Your task to perform on an android device: open a bookmark in the chrome app Image 0: 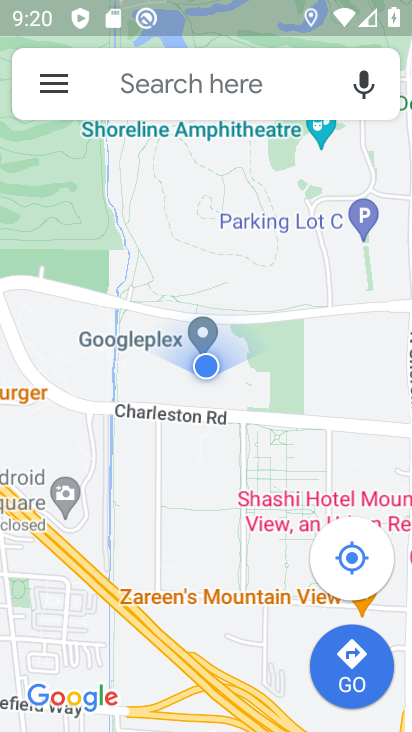
Step 0: press home button
Your task to perform on an android device: open a bookmark in the chrome app Image 1: 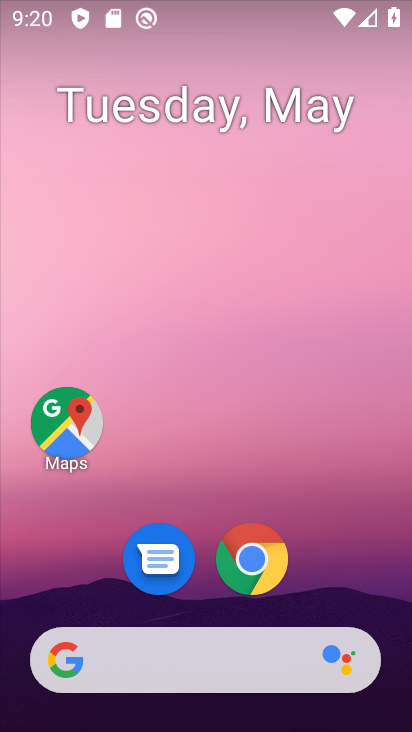
Step 1: click (258, 554)
Your task to perform on an android device: open a bookmark in the chrome app Image 2: 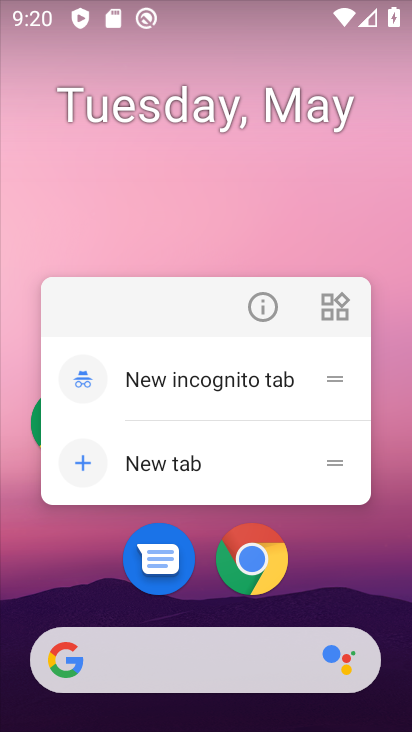
Step 2: click (256, 559)
Your task to perform on an android device: open a bookmark in the chrome app Image 3: 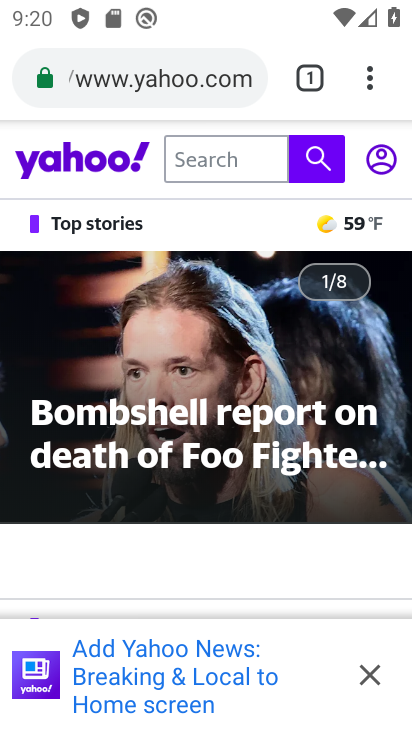
Step 3: task complete